Your task to perform on an android device: Check the news Image 0: 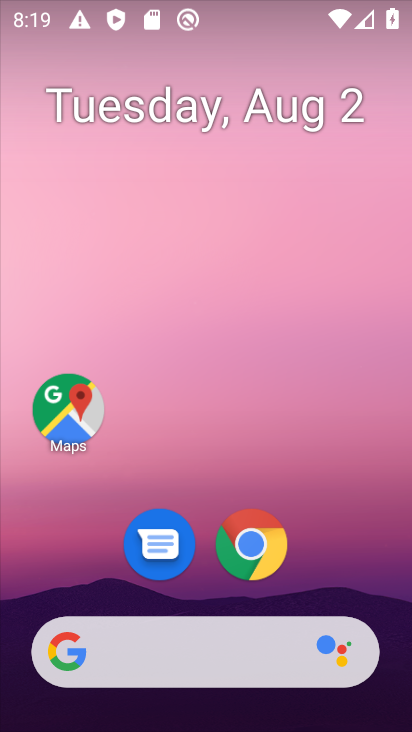
Step 0: click (133, 654)
Your task to perform on an android device: Check the news Image 1: 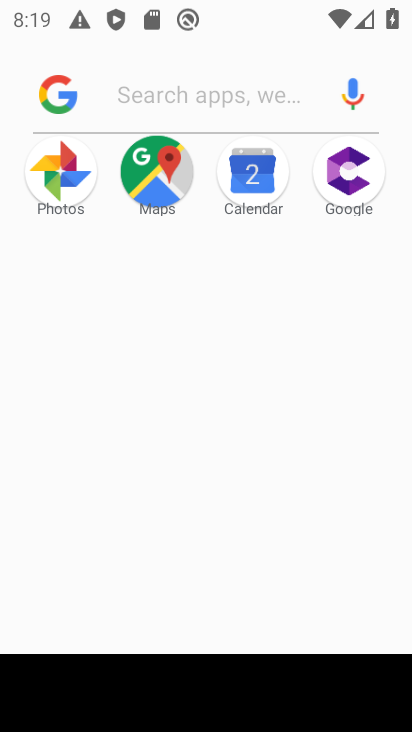
Step 1: click (121, 83)
Your task to perform on an android device: Check the news Image 2: 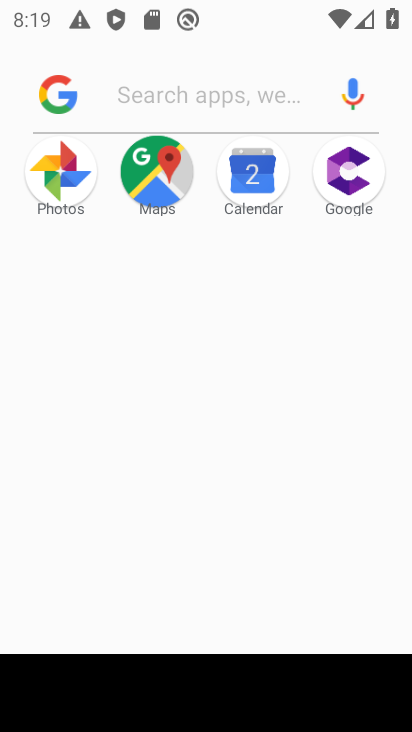
Step 2: type " news"
Your task to perform on an android device: Check the news Image 3: 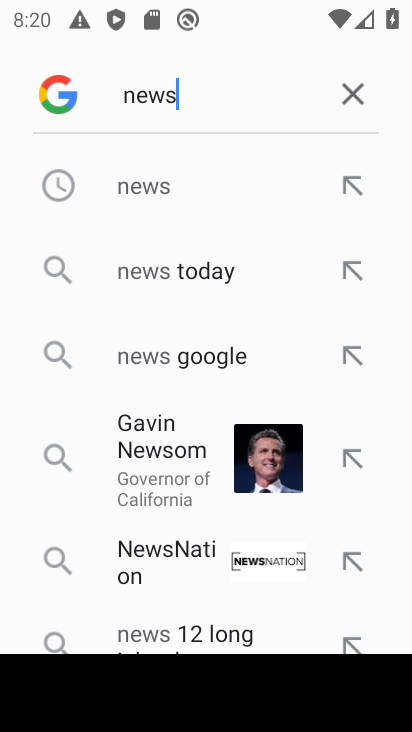
Step 3: click (144, 191)
Your task to perform on an android device: Check the news Image 4: 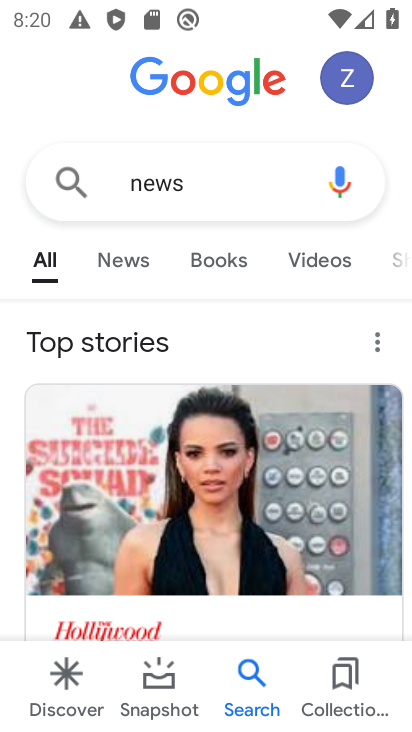
Step 4: click (131, 257)
Your task to perform on an android device: Check the news Image 5: 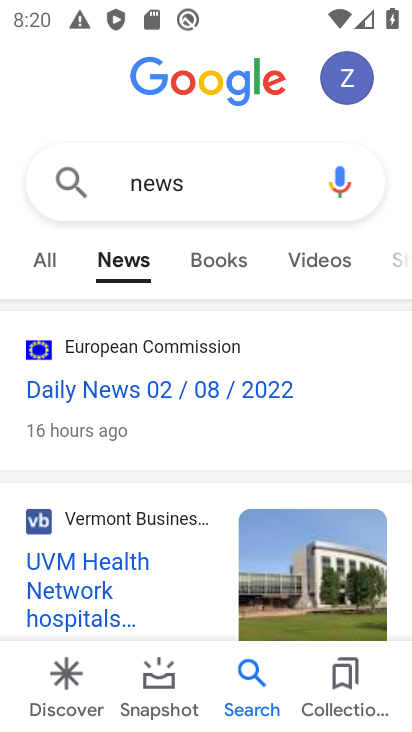
Step 5: task complete